Your task to perform on an android device: Is it going to rain today? Image 0: 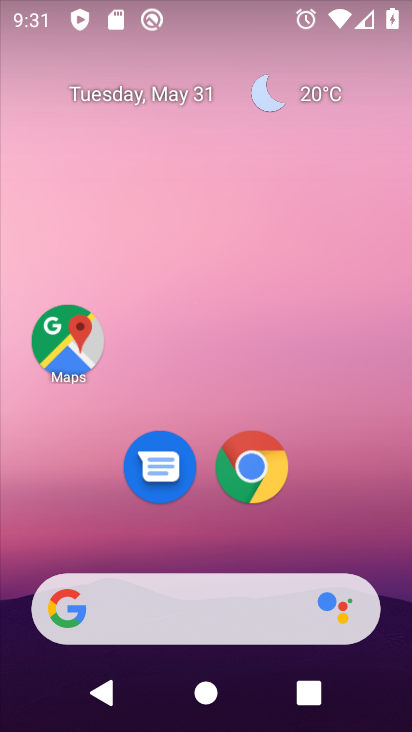
Step 0: drag from (191, 457) to (206, 100)
Your task to perform on an android device: Is it going to rain today? Image 1: 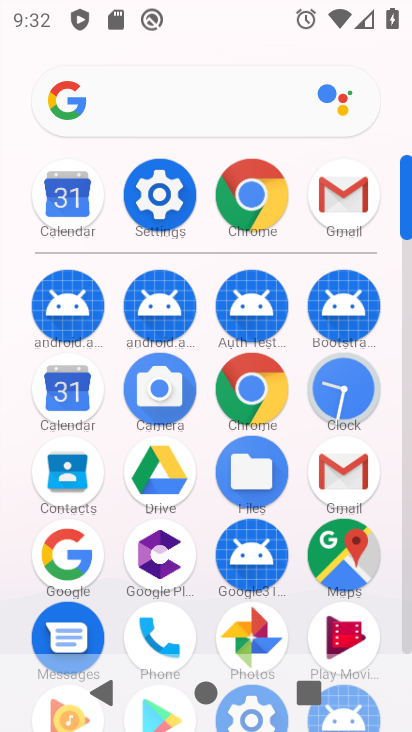
Step 1: click (158, 107)
Your task to perform on an android device: Is it going to rain today? Image 2: 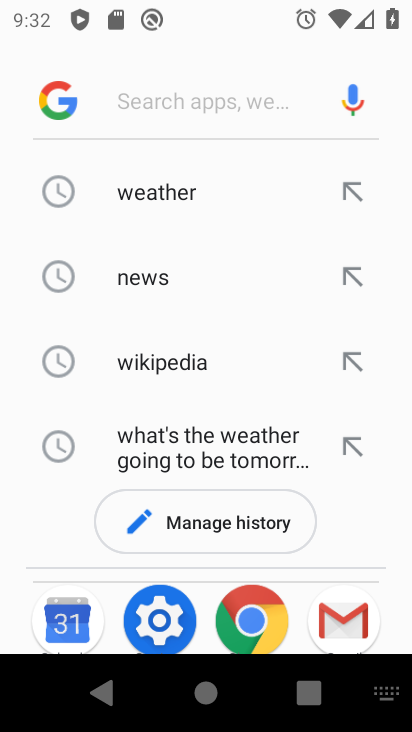
Step 2: type "rain today?"
Your task to perform on an android device: Is it going to rain today? Image 3: 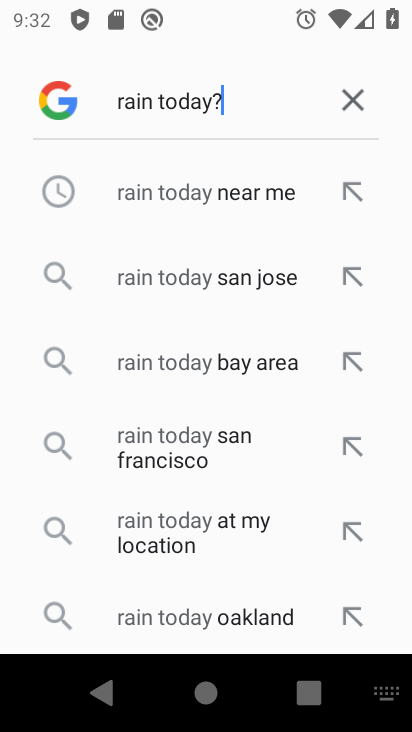
Step 3: click (225, 212)
Your task to perform on an android device: Is it going to rain today? Image 4: 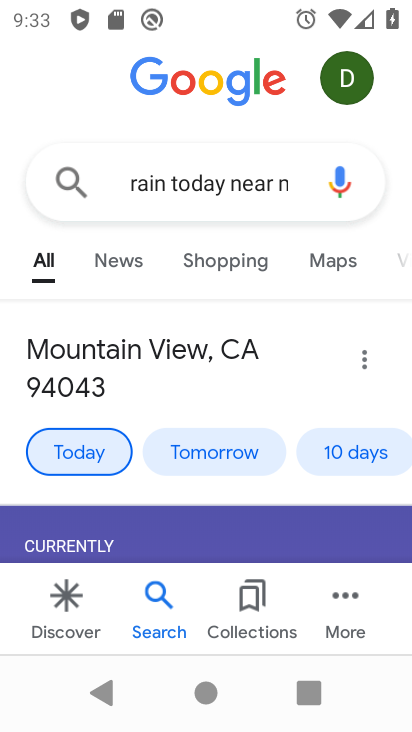
Step 4: task complete